Your task to perform on an android device: Look up the best rated 5.1 home theater speakers on Walmart. Image 0: 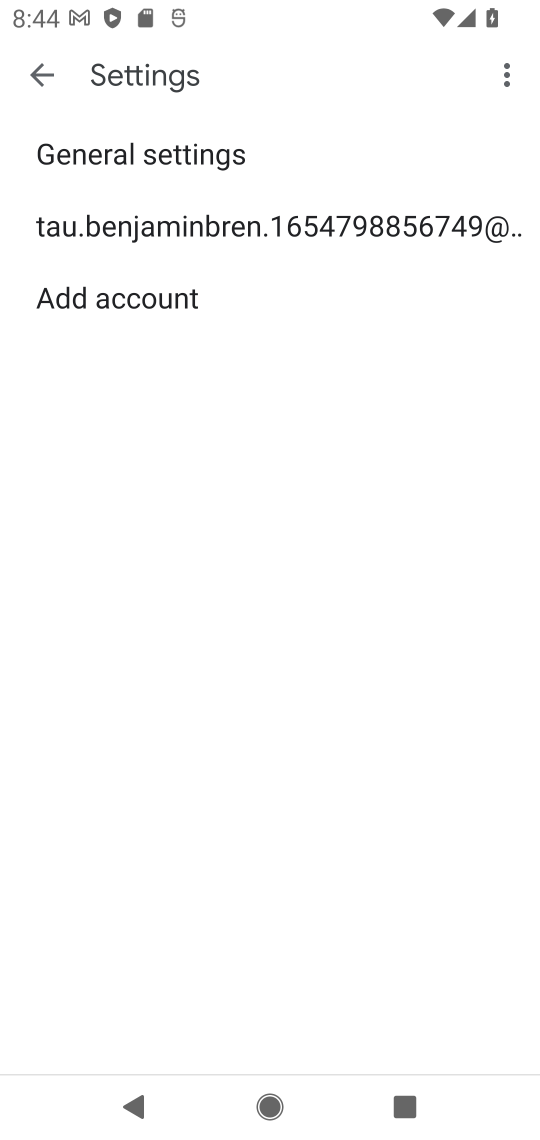
Step 0: press home button
Your task to perform on an android device: Look up the best rated 5.1 home theater speakers on Walmart. Image 1: 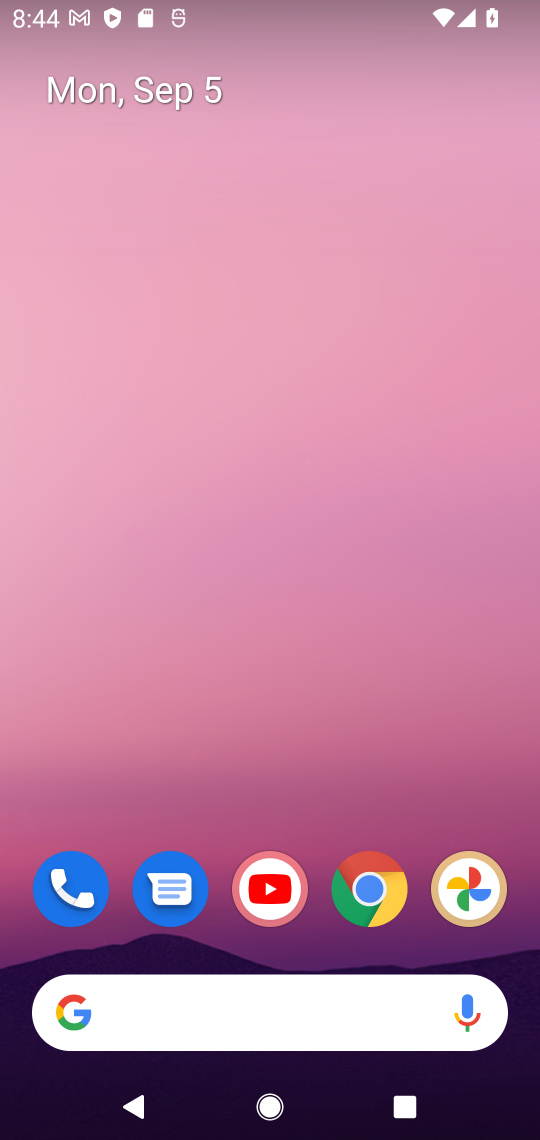
Step 1: click (247, 1011)
Your task to perform on an android device: Look up the best rated 5.1 home theater speakers on Walmart. Image 2: 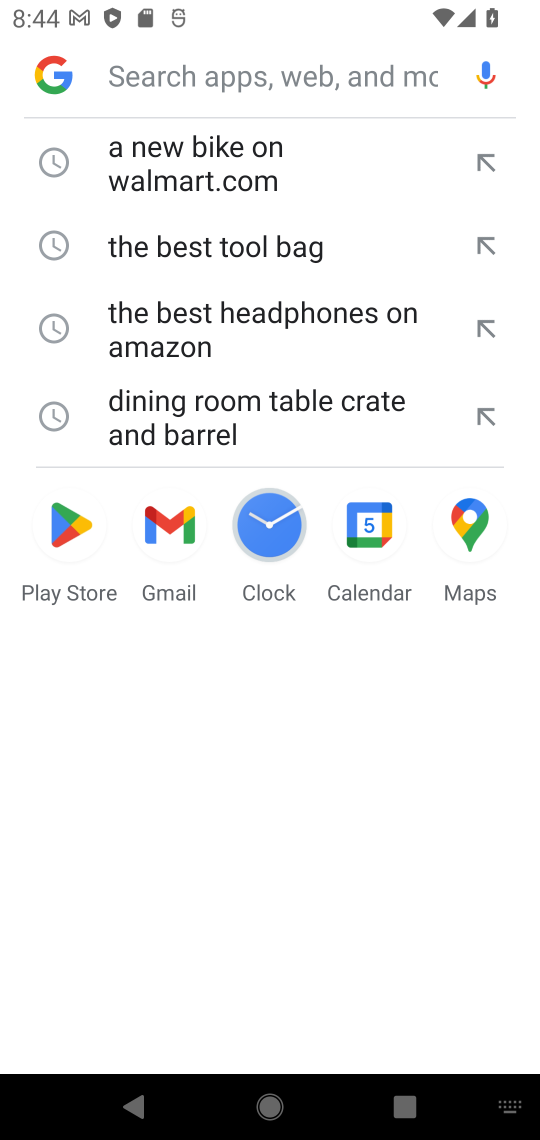
Step 2: type "the best rated 5.1 home theater speakers on Walmart"
Your task to perform on an android device: Look up the best rated 5.1 home theater speakers on Walmart. Image 3: 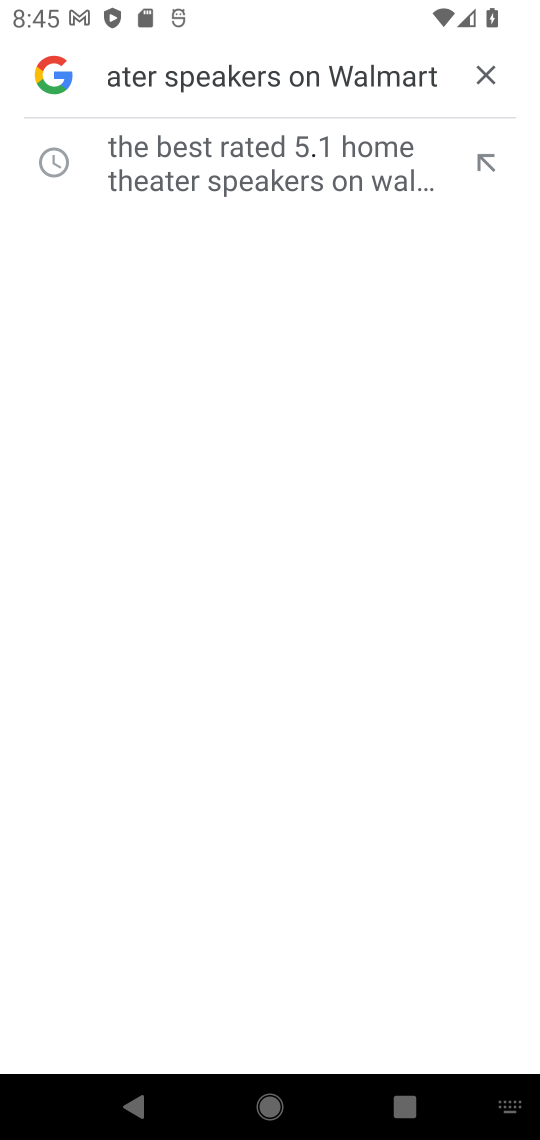
Step 3: click (335, 169)
Your task to perform on an android device: Look up the best rated 5.1 home theater speakers on Walmart. Image 4: 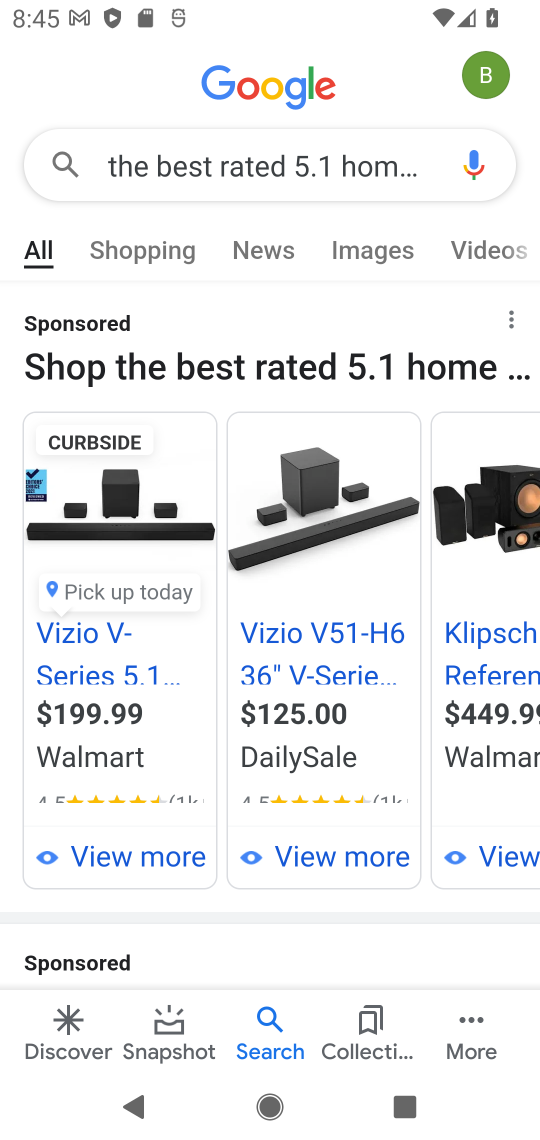
Step 4: task complete